Your task to perform on an android device: Go to ESPN.com Image 0: 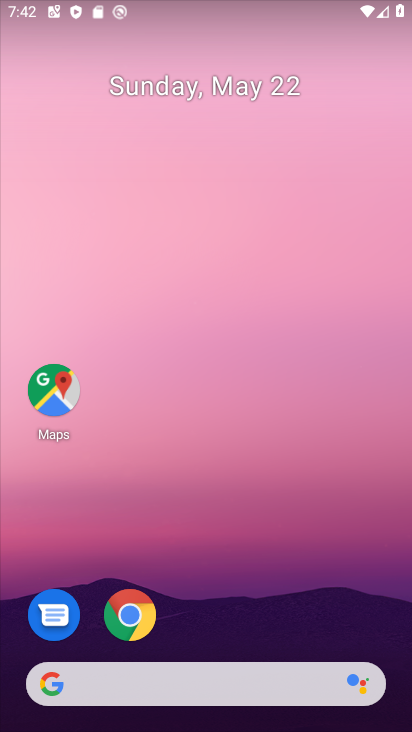
Step 0: click (120, 600)
Your task to perform on an android device: Go to ESPN.com Image 1: 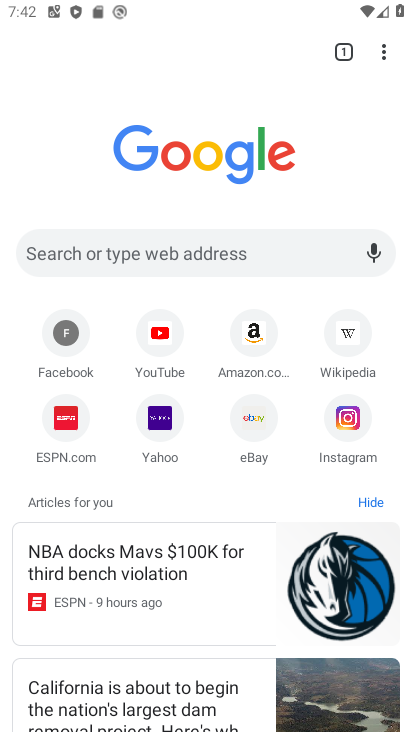
Step 1: click (45, 436)
Your task to perform on an android device: Go to ESPN.com Image 2: 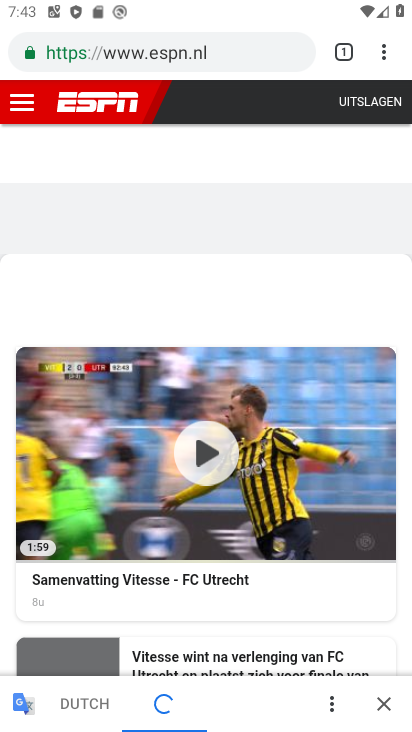
Step 2: task complete